Your task to perform on an android device: Go to ESPN.com Image 0: 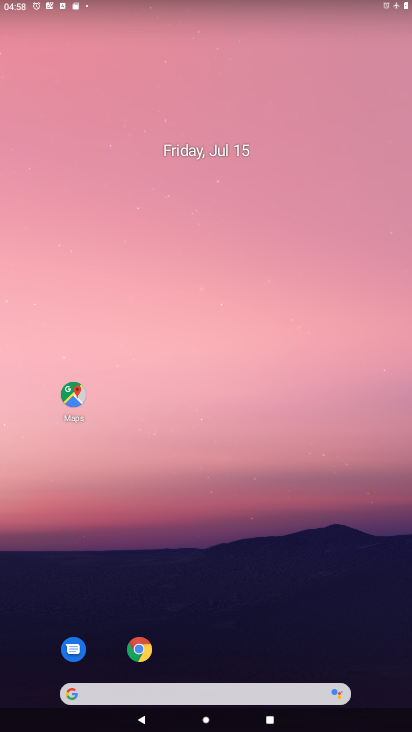
Step 0: click (137, 650)
Your task to perform on an android device: Go to ESPN.com Image 1: 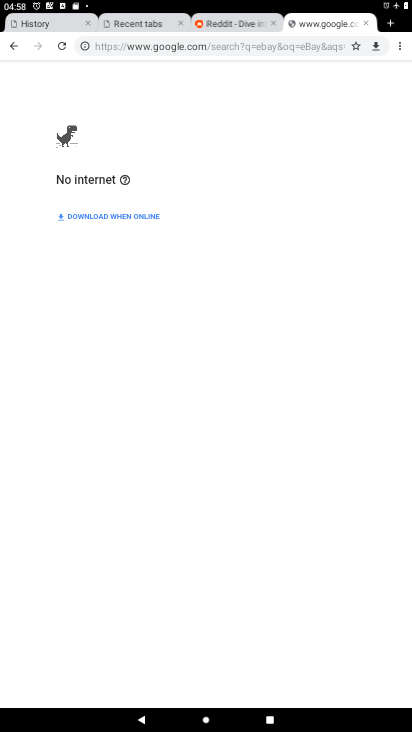
Step 1: click (234, 43)
Your task to perform on an android device: Go to ESPN.com Image 2: 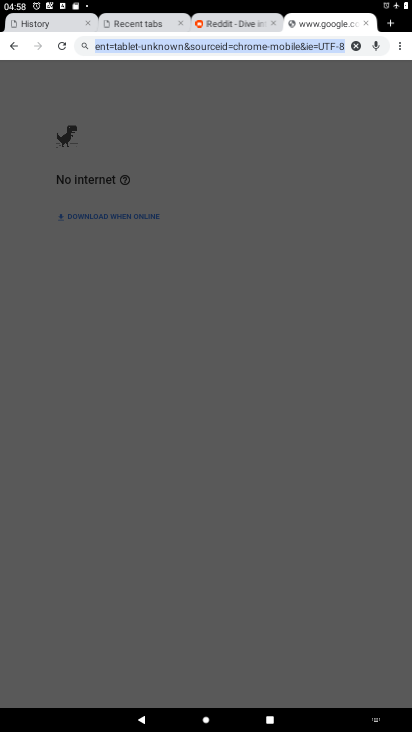
Step 2: click (356, 47)
Your task to perform on an android device: Go to ESPN.com Image 3: 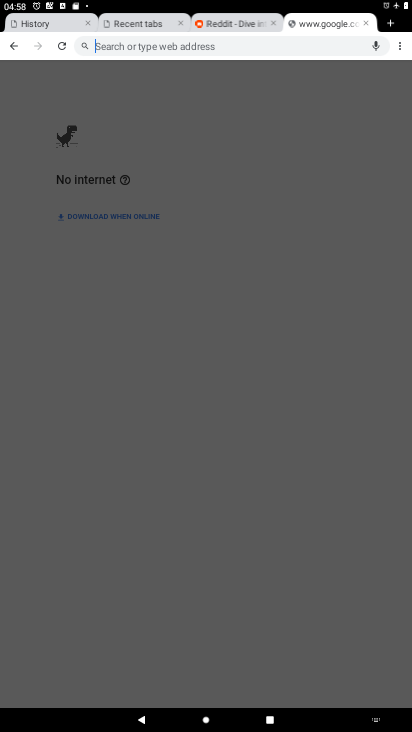
Step 3: type "ESPN.com"
Your task to perform on an android device: Go to ESPN.com Image 4: 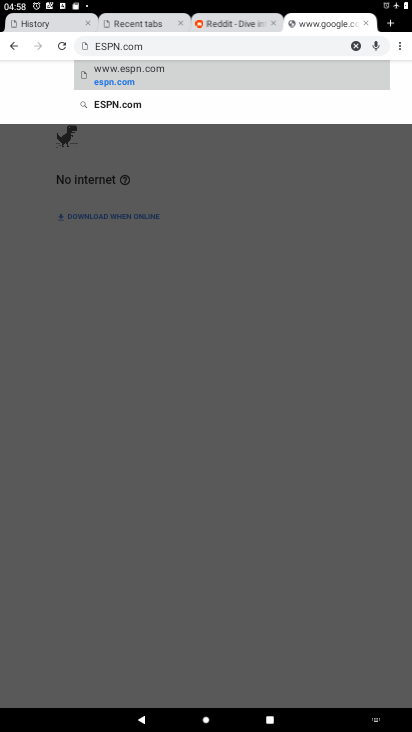
Step 4: click (118, 71)
Your task to perform on an android device: Go to ESPN.com Image 5: 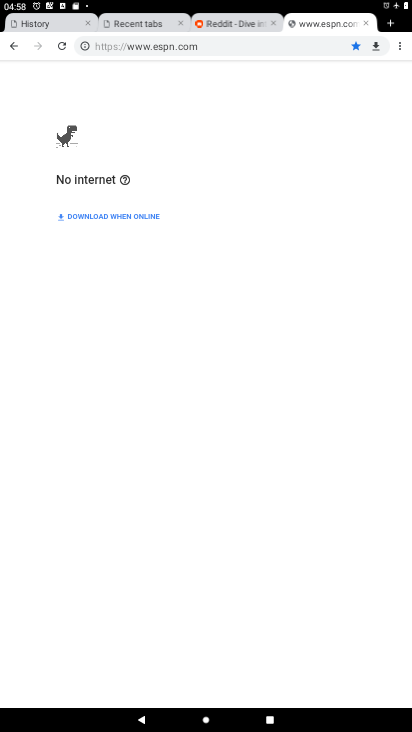
Step 5: task complete